Your task to perform on an android device: turn off location Image 0: 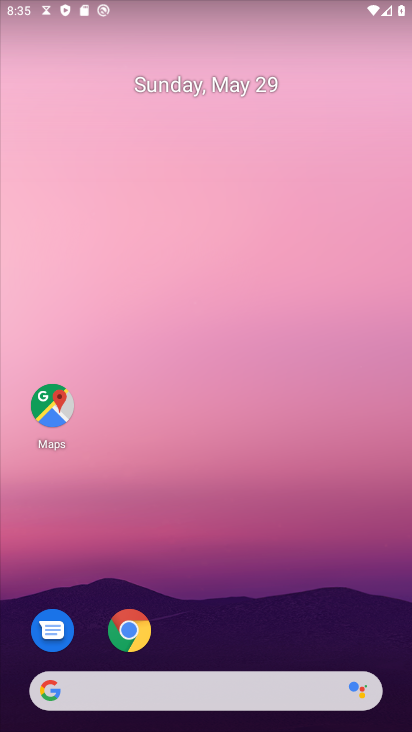
Step 0: drag from (252, 586) to (316, 187)
Your task to perform on an android device: turn off location Image 1: 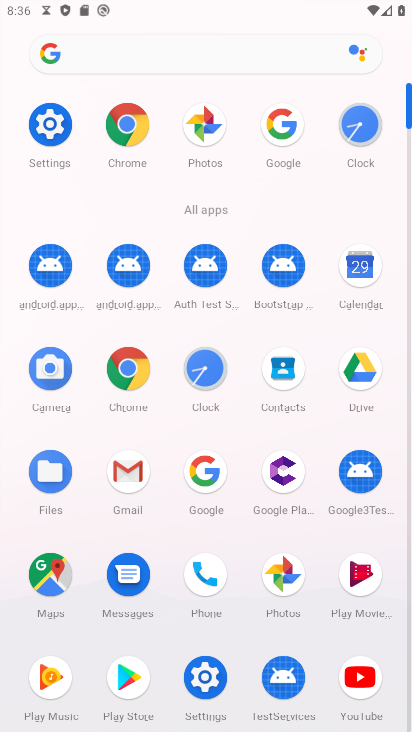
Step 1: click (49, 125)
Your task to perform on an android device: turn off location Image 2: 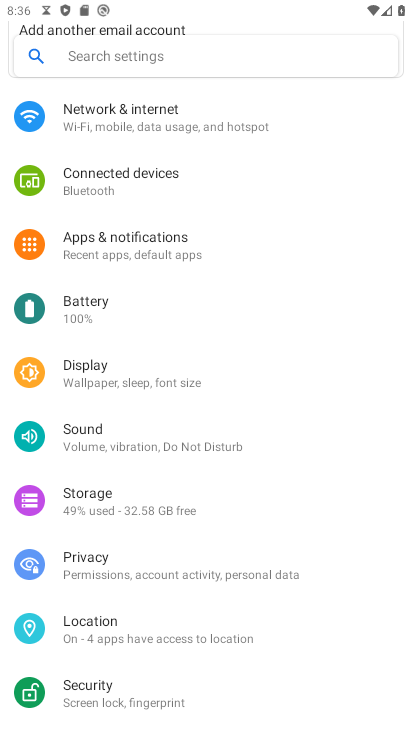
Step 2: click (113, 624)
Your task to perform on an android device: turn off location Image 3: 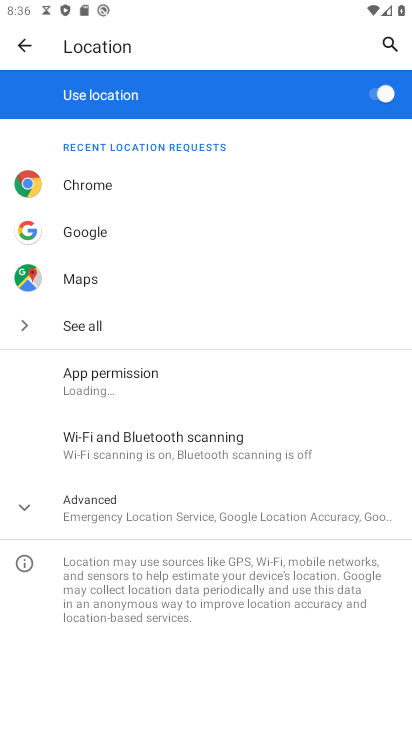
Step 3: click (372, 98)
Your task to perform on an android device: turn off location Image 4: 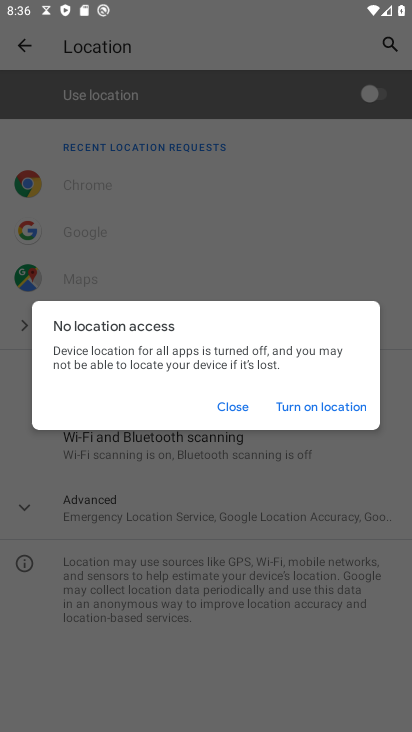
Step 4: click (237, 393)
Your task to perform on an android device: turn off location Image 5: 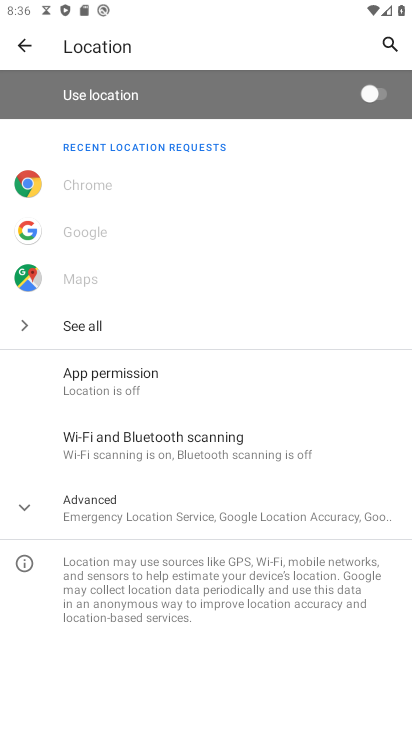
Step 5: task complete